Your task to perform on an android device: open app "Gmail" Image 0: 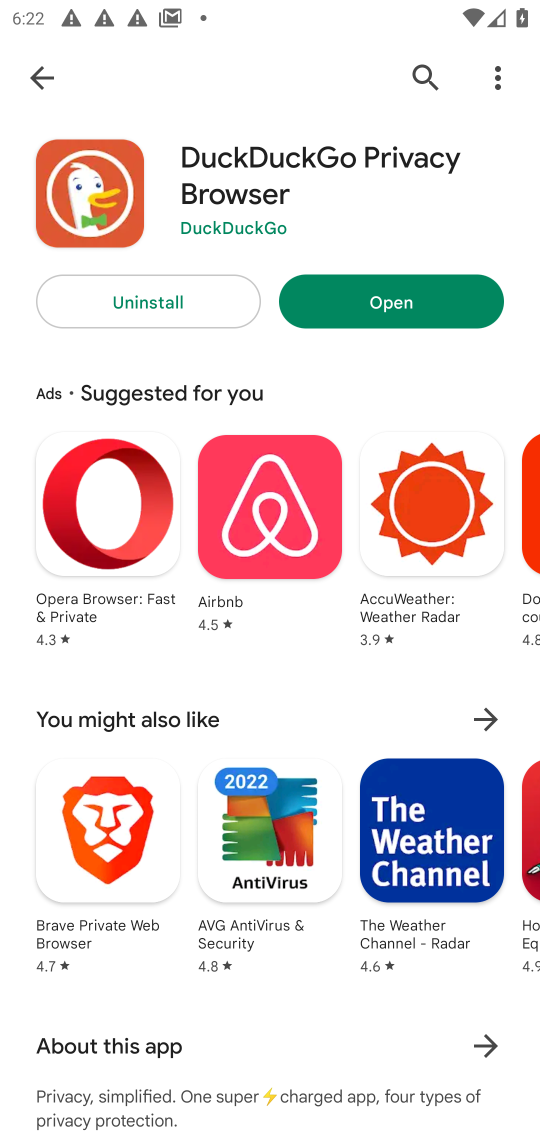
Step 0: click (428, 69)
Your task to perform on an android device: open app "Gmail" Image 1: 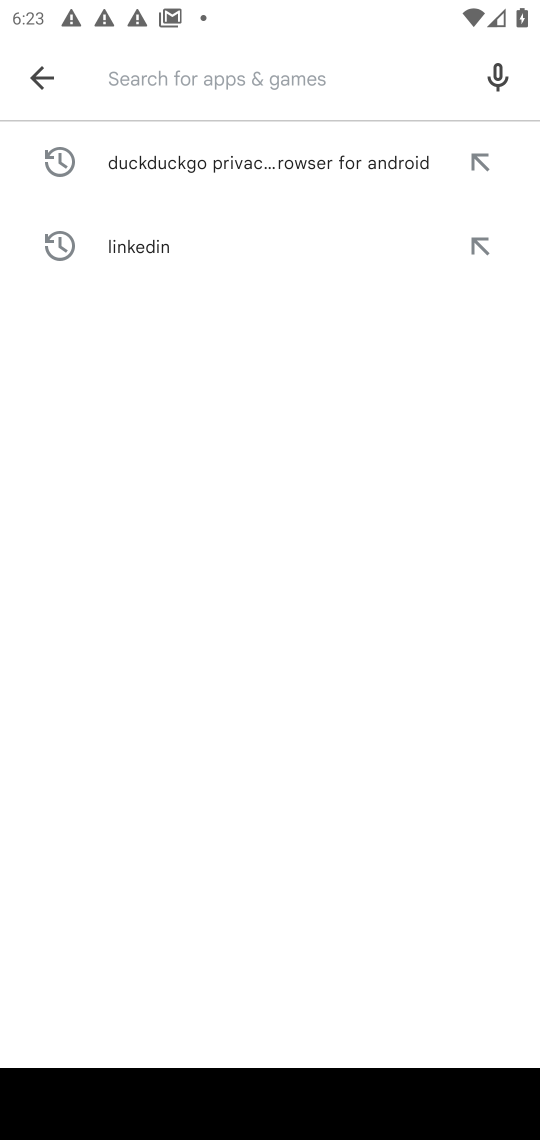
Step 1: click (157, 66)
Your task to perform on an android device: open app "Gmail" Image 2: 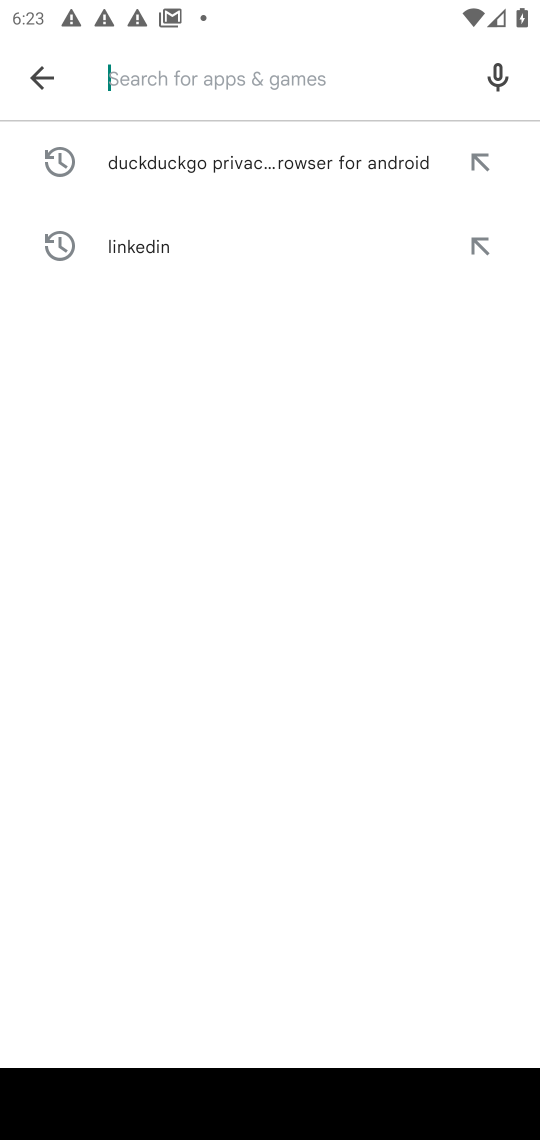
Step 2: type "Gmail"
Your task to perform on an android device: open app "Gmail" Image 3: 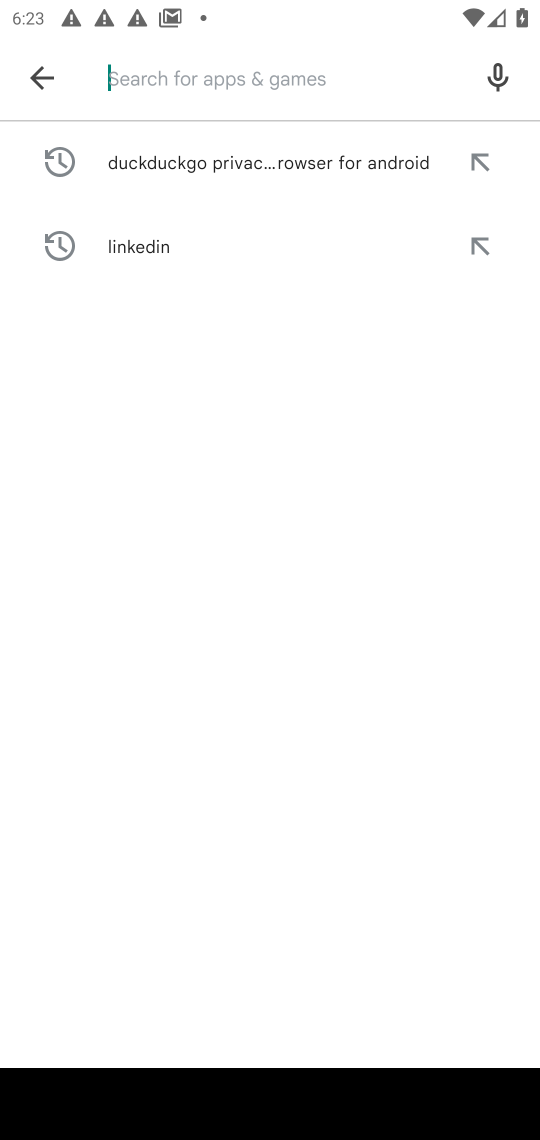
Step 3: click (293, 667)
Your task to perform on an android device: open app "Gmail" Image 4: 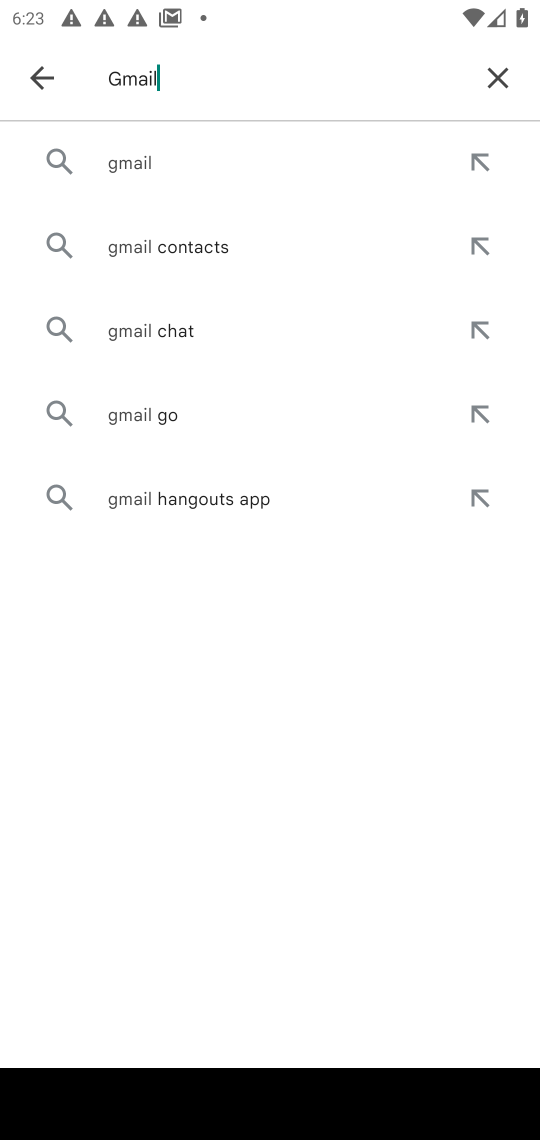
Step 4: click (114, 141)
Your task to perform on an android device: open app "Gmail" Image 5: 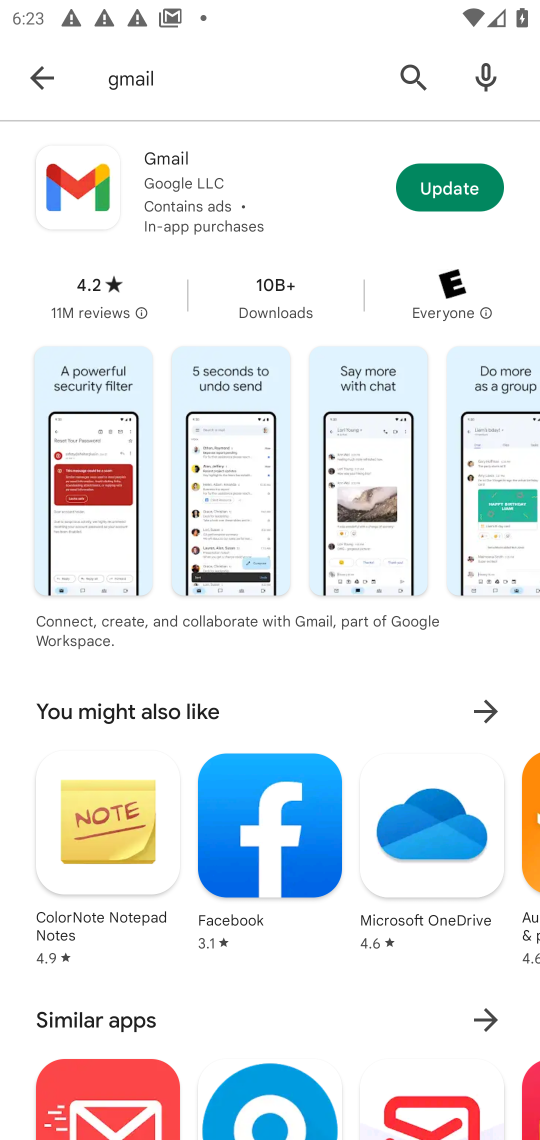
Step 5: click (213, 189)
Your task to perform on an android device: open app "Gmail" Image 6: 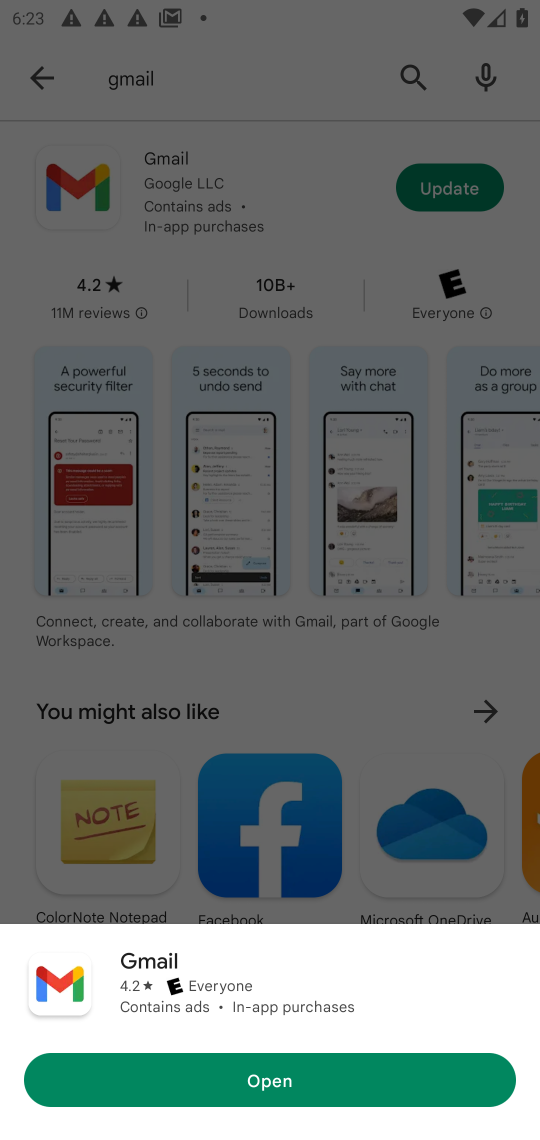
Step 6: click (226, 1065)
Your task to perform on an android device: open app "Gmail" Image 7: 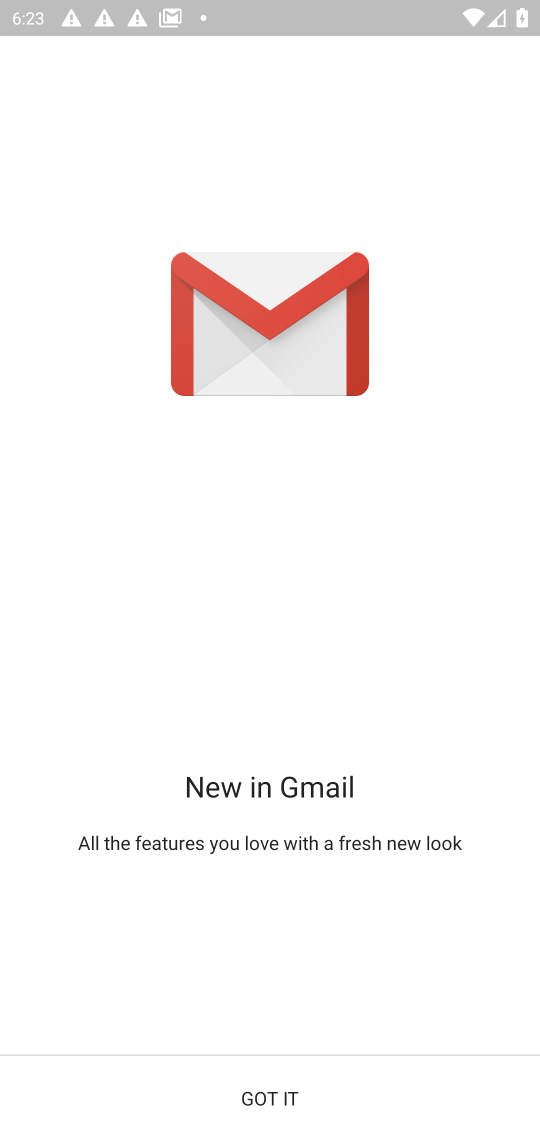
Step 7: click (276, 1108)
Your task to perform on an android device: open app "Gmail" Image 8: 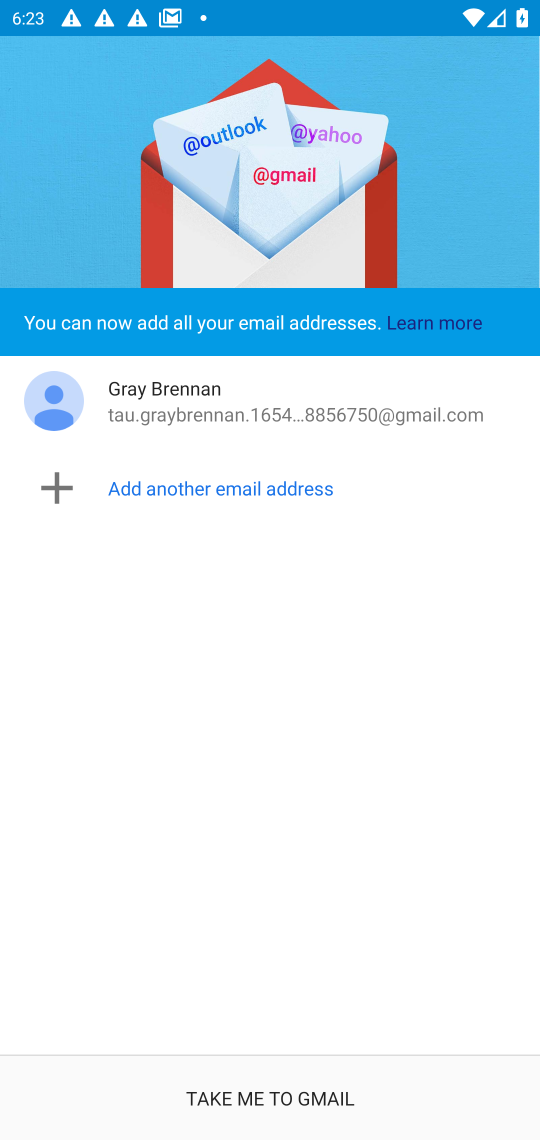
Step 8: task complete